Your task to perform on an android device: Go to Android settings Image 0: 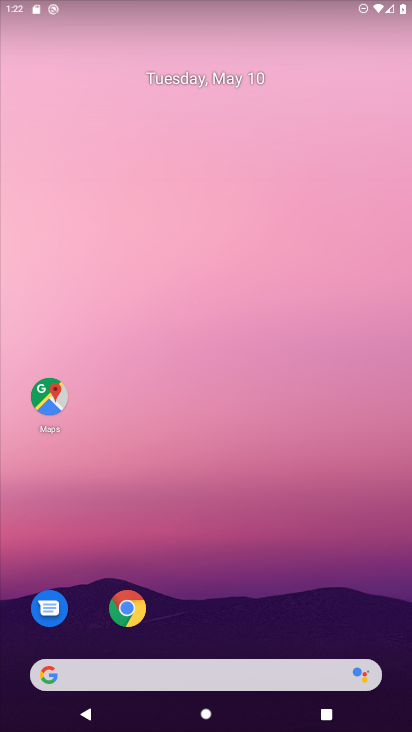
Step 0: press home button
Your task to perform on an android device: Go to Android settings Image 1: 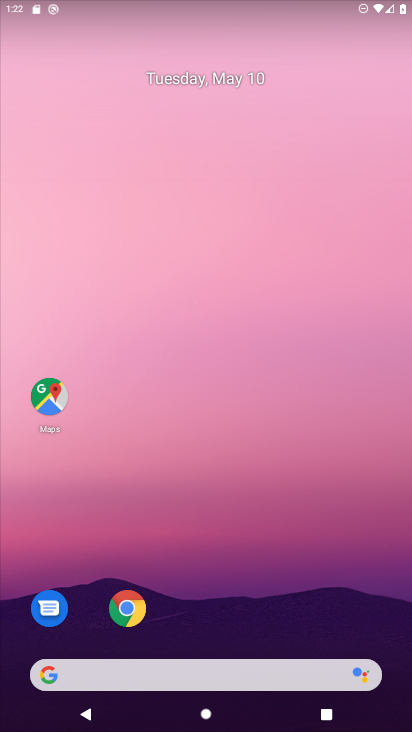
Step 1: drag from (325, 623) to (324, 210)
Your task to perform on an android device: Go to Android settings Image 2: 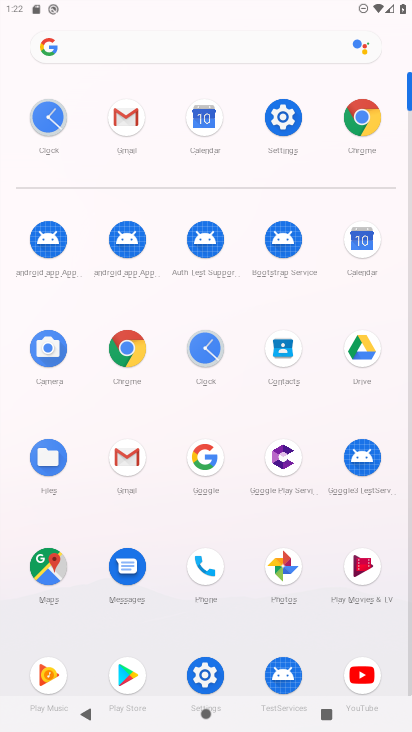
Step 2: click (198, 680)
Your task to perform on an android device: Go to Android settings Image 3: 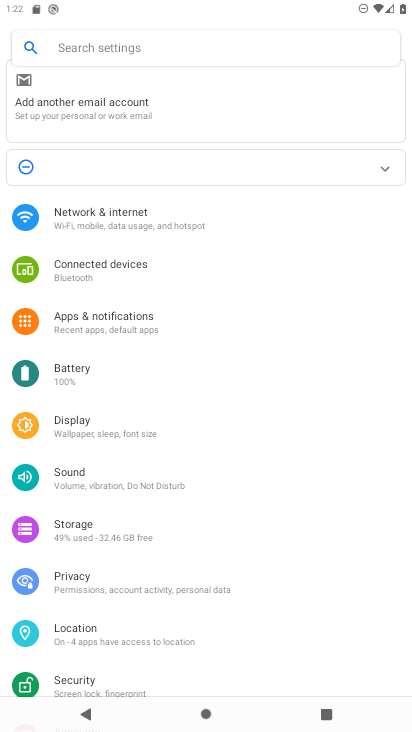
Step 3: task complete